Your task to perform on an android device: Open settings Image 0: 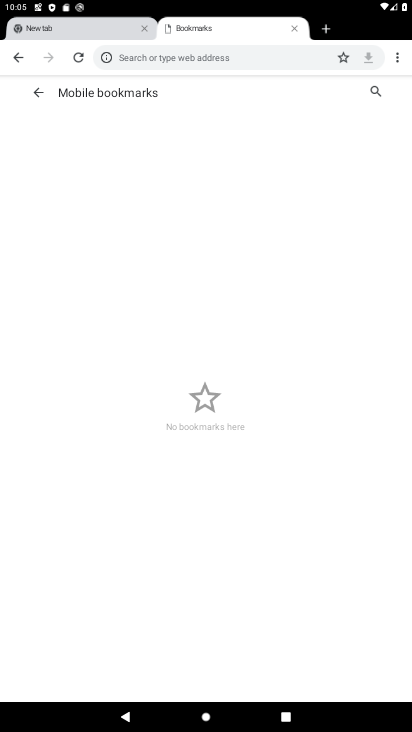
Step 0: press home button
Your task to perform on an android device: Open settings Image 1: 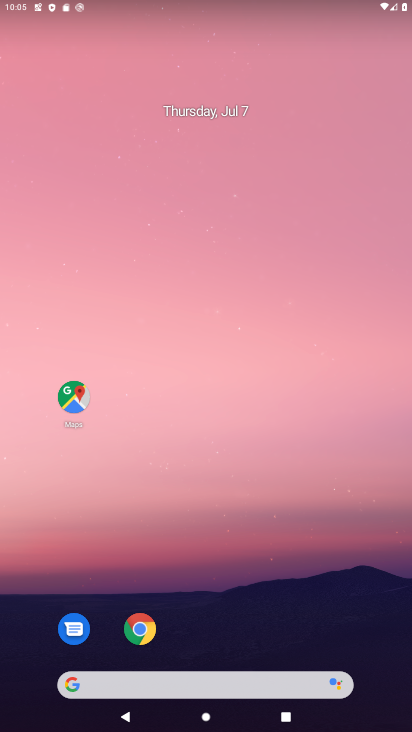
Step 1: drag from (263, 554) to (219, 66)
Your task to perform on an android device: Open settings Image 2: 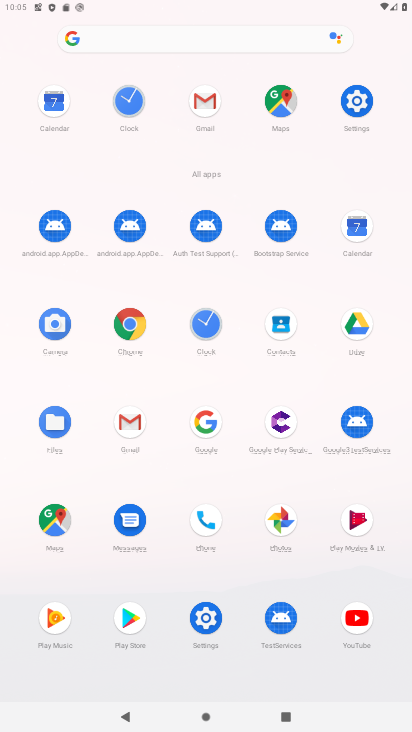
Step 2: click (362, 95)
Your task to perform on an android device: Open settings Image 3: 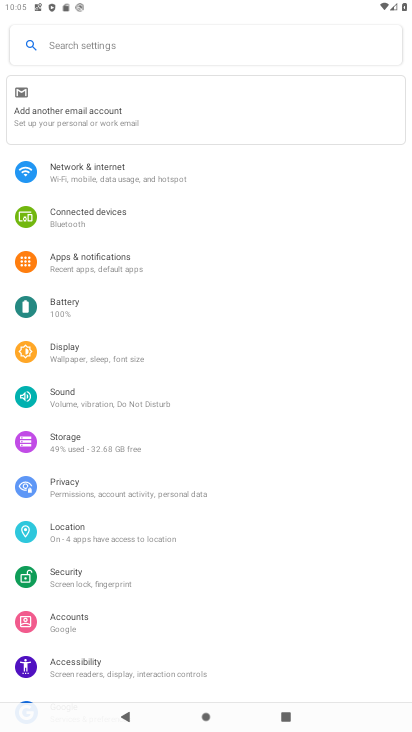
Step 3: task complete